Your task to perform on an android device: toggle location history Image 0: 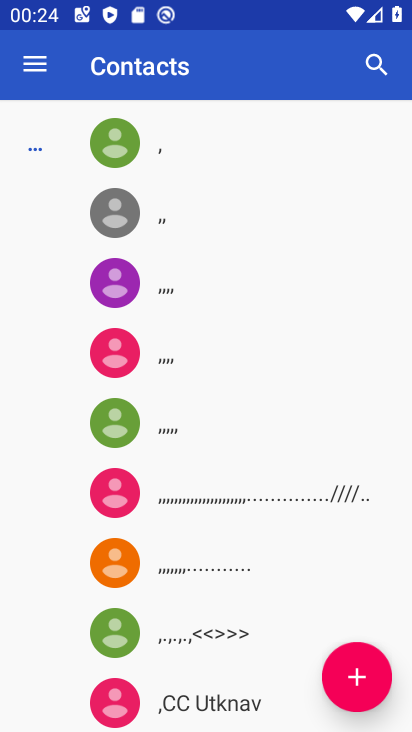
Step 0: press home button
Your task to perform on an android device: toggle location history Image 1: 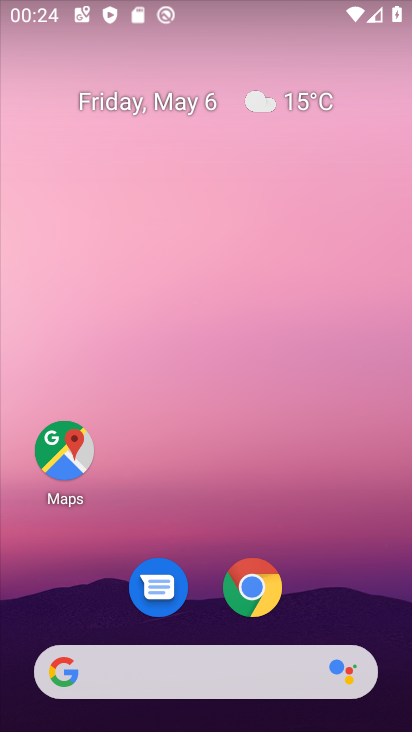
Step 1: drag from (376, 572) to (328, 275)
Your task to perform on an android device: toggle location history Image 2: 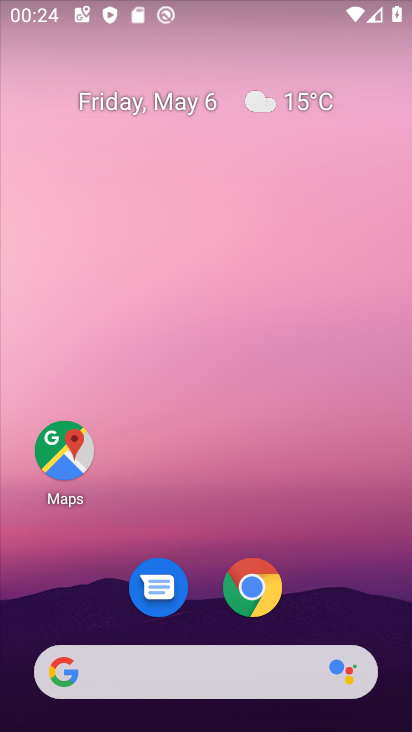
Step 2: drag from (363, 483) to (349, 240)
Your task to perform on an android device: toggle location history Image 3: 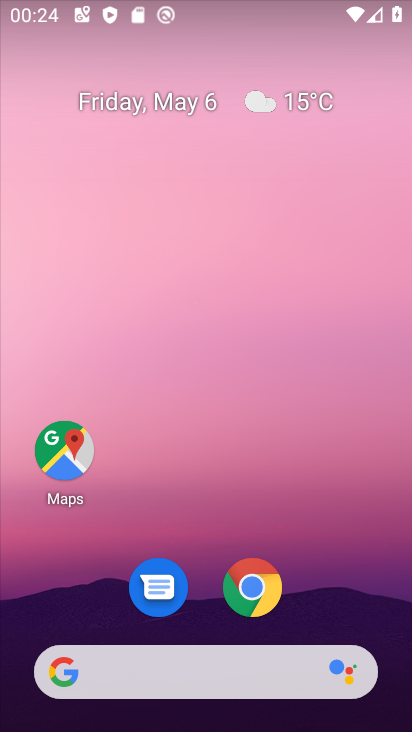
Step 3: drag from (395, 641) to (316, 236)
Your task to perform on an android device: toggle location history Image 4: 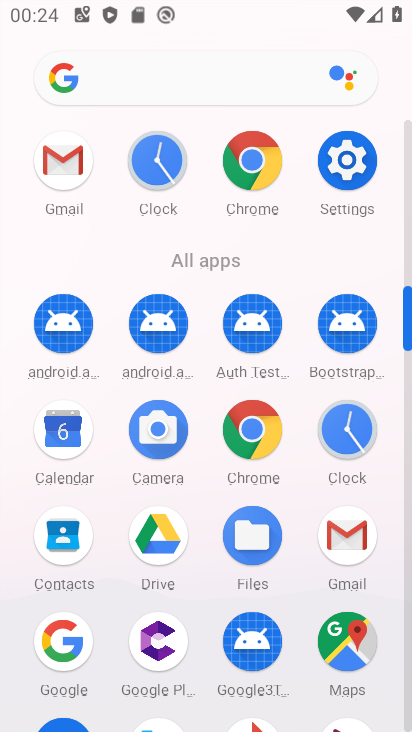
Step 4: click (248, 177)
Your task to perform on an android device: toggle location history Image 5: 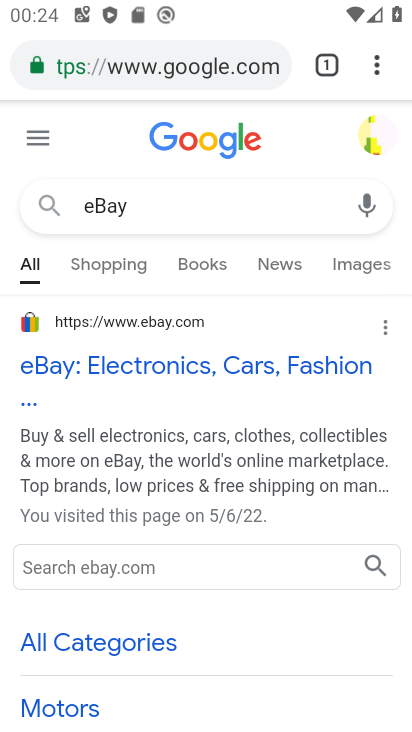
Step 5: press back button
Your task to perform on an android device: toggle location history Image 6: 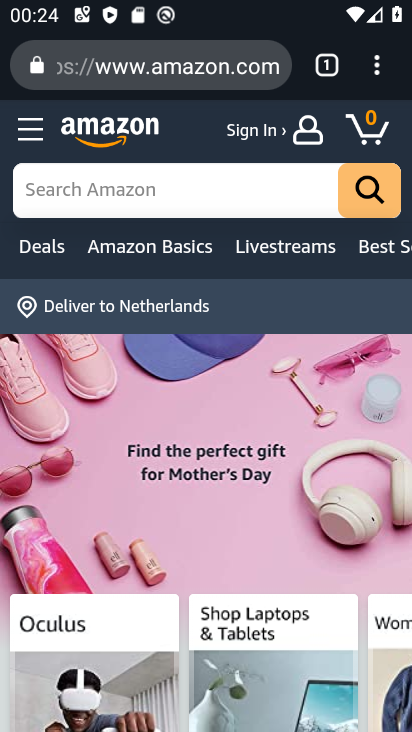
Step 6: press home button
Your task to perform on an android device: toggle location history Image 7: 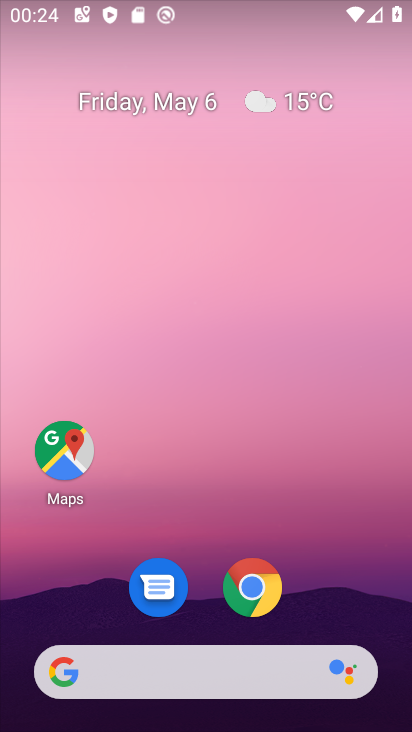
Step 7: drag from (380, 615) to (371, 103)
Your task to perform on an android device: toggle location history Image 8: 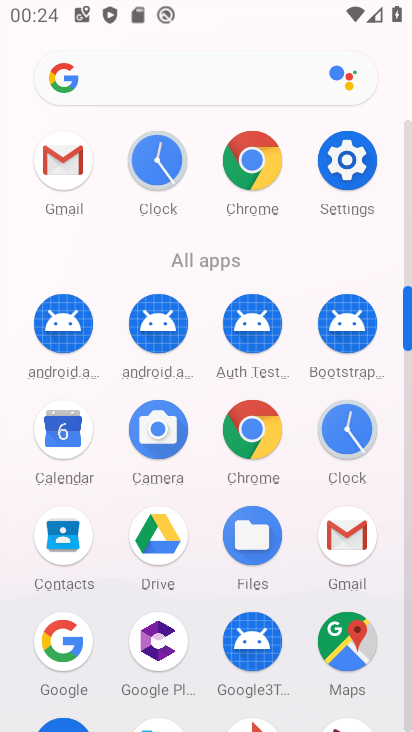
Step 8: click (344, 151)
Your task to perform on an android device: toggle location history Image 9: 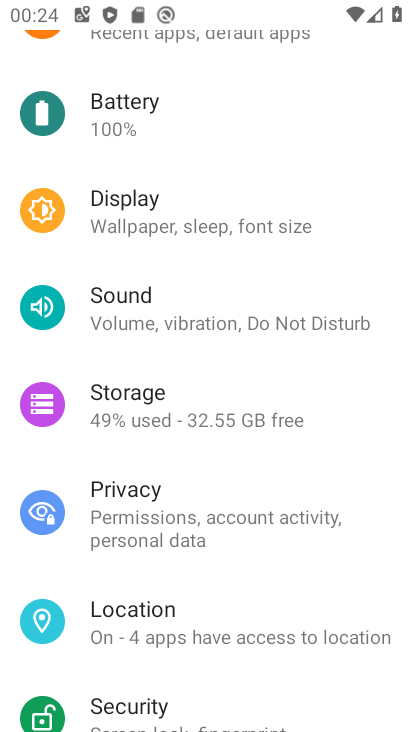
Step 9: click (143, 618)
Your task to perform on an android device: toggle location history Image 10: 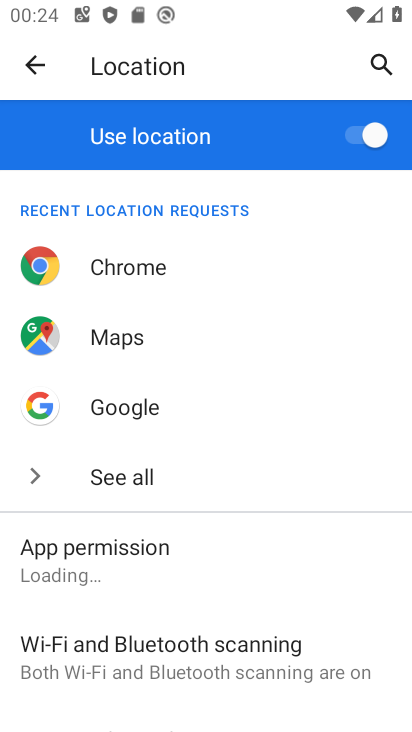
Step 10: click (66, 569)
Your task to perform on an android device: toggle location history Image 11: 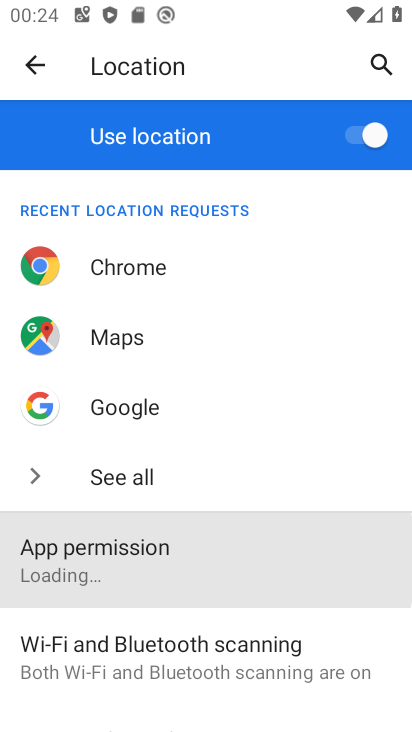
Step 11: drag from (244, 574) to (238, 341)
Your task to perform on an android device: toggle location history Image 12: 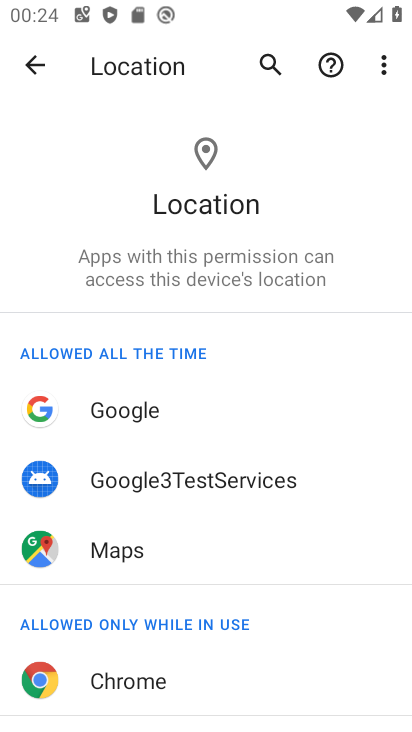
Step 12: click (38, 70)
Your task to perform on an android device: toggle location history Image 13: 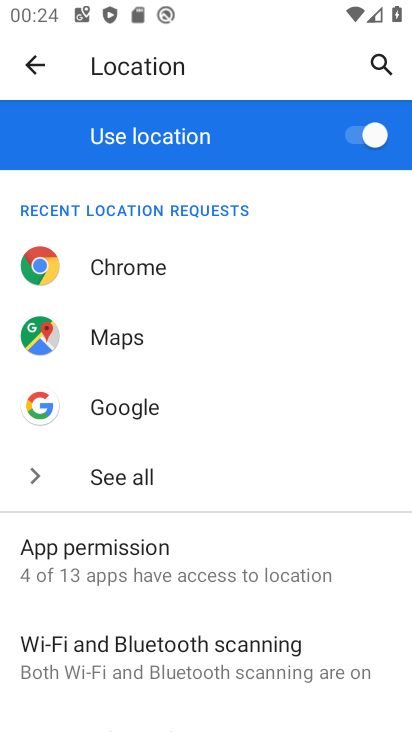
Step 13: drag from (304, 673) to (255, 356)
Your task to perform on an android device: toggle location history Image 14: 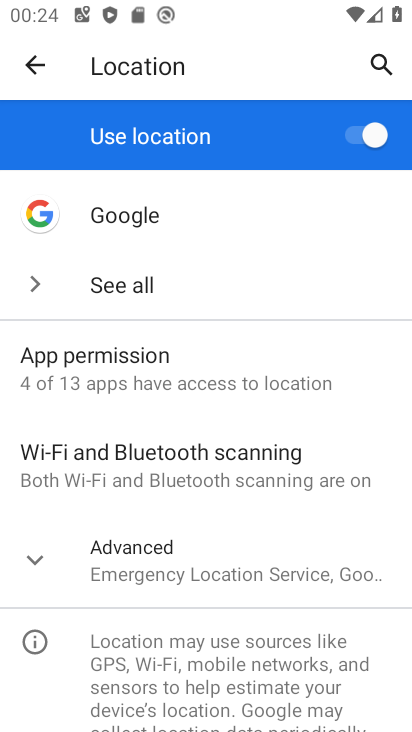
Step 14: click (27, 562)
Your task to perform on an android device: toggle location history Image 15: 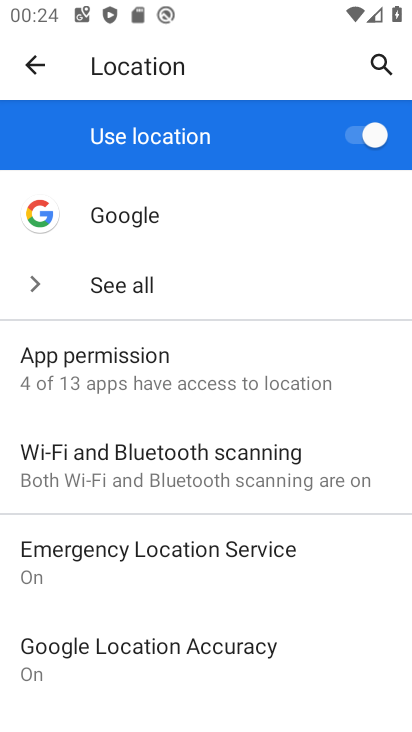
Step 15: drag from (234, 678) to (200, 412)
Your task to perform on an android device: toggle location history Image 16: 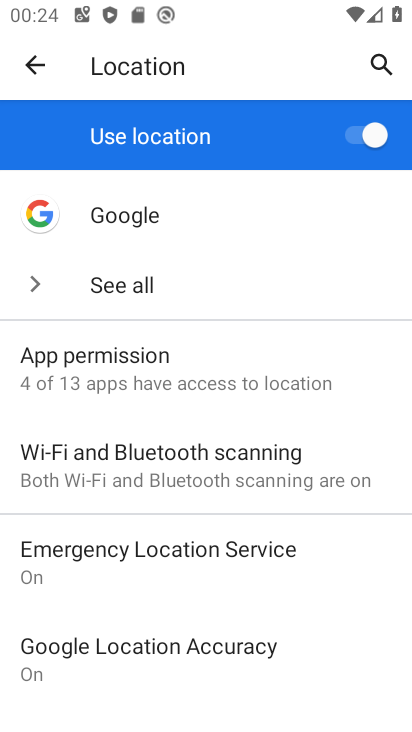
Step 16: drag from (281, 619) to (238, 384)
Your task to perform on an android device: toggle location history Image 17: 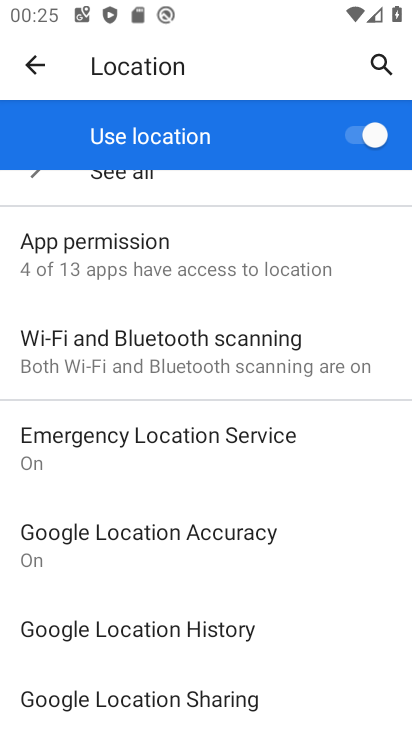
Step 17: click (167, 630)
Your task to perform on an android device: toggle location history Image 18: 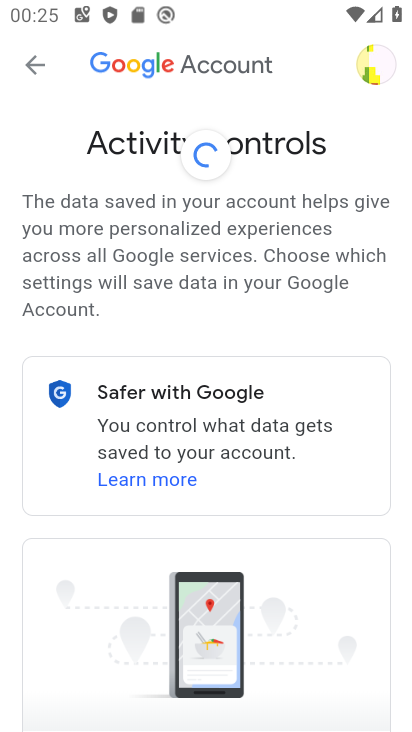
Step 18: drag from (295, 646) to (290, 280)
Your task to perform on an android device: toggle location history Image 19: 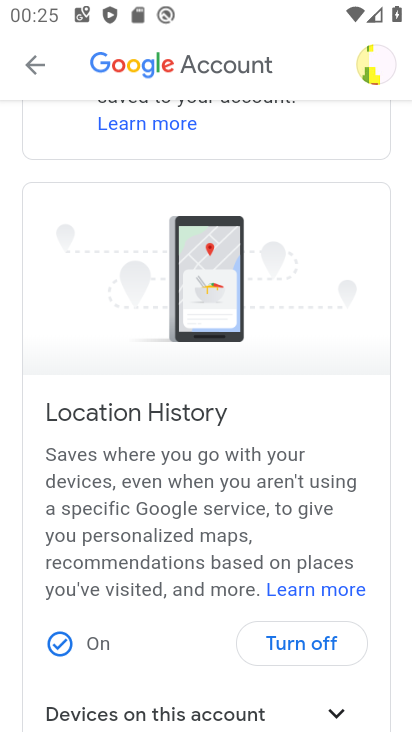
Step 19: click (304, 649)
Your task to perform on an android device: toggle location history Image 20: 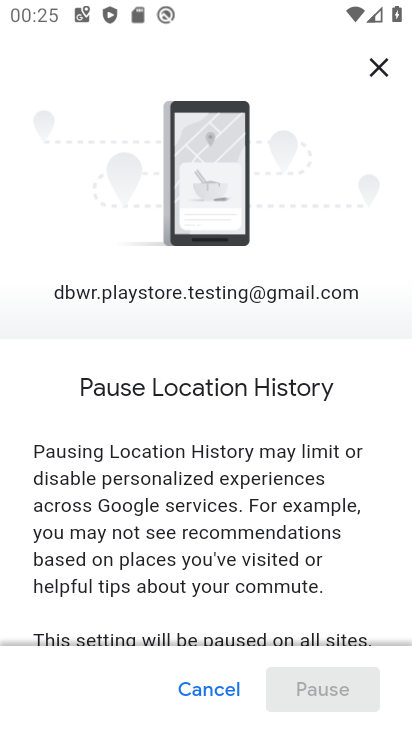
Step 20: drag from (240, 526) to (283, 217)
Your task to perform on an android device: toggle location history Image 21: 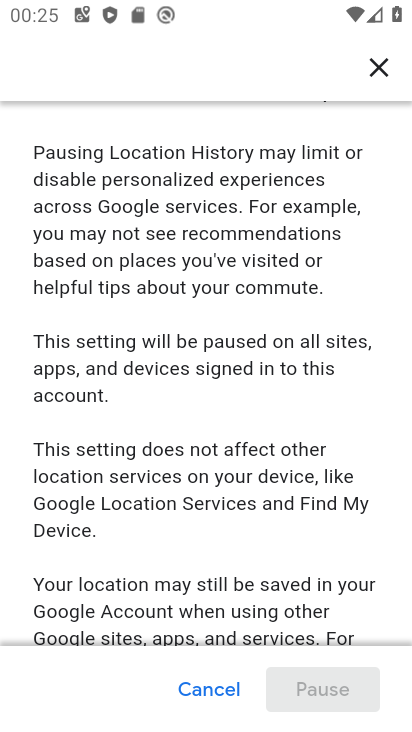
Step 21: drag from (306, 618) to (263, 252)
Your task to perform on an android device: toggle location history Image 22: 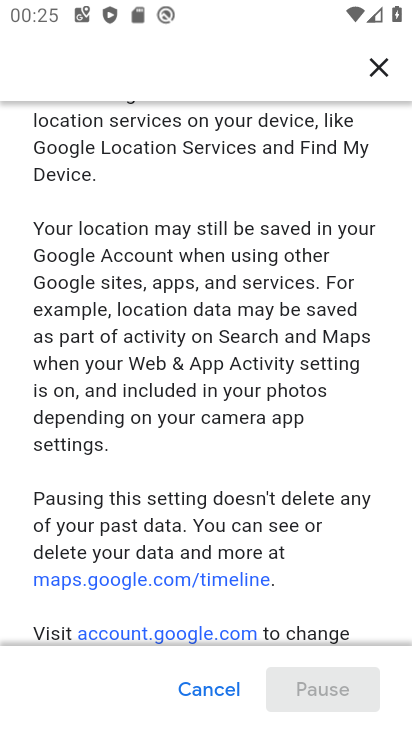
Step 22: drag from (324, 606) to (254, 274)
Your task to perform on an android device: toggle location history Image 23: 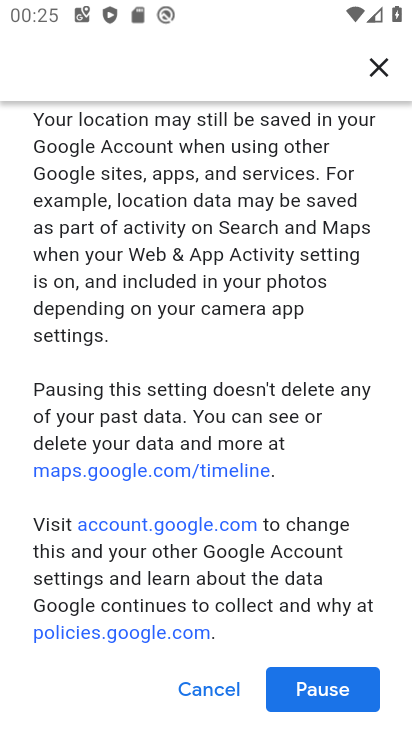
Step 23: drag from (301, 536) to (269, 293)
Your task to perform on an android device: toggle location history Image 24: 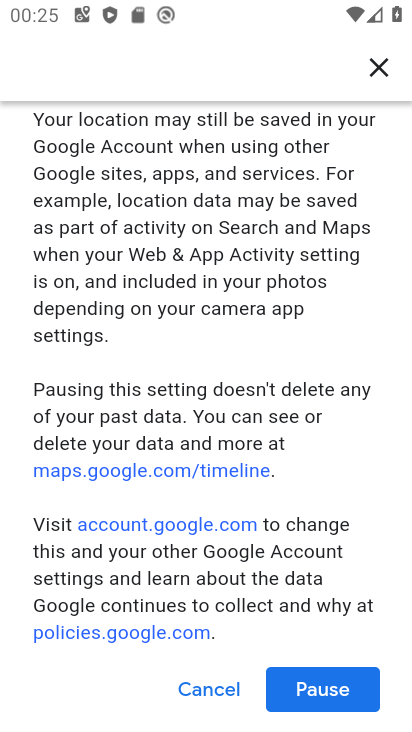
Step 24: click (324, 688)
Your task to perform on an android device: toggle location history Image 25: 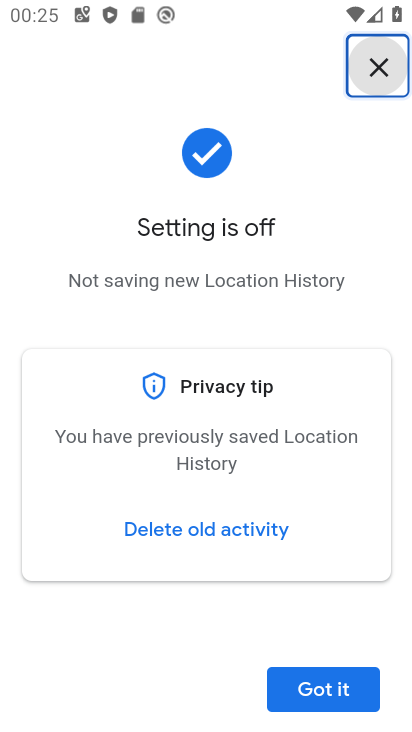
Step 25: click (339, 692)
Your task to perform on an android device: toggle location history Image 26: 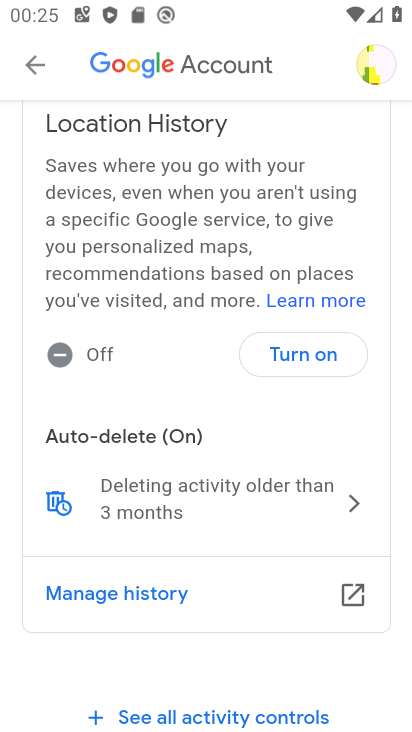
Step 26: task complete